Your task to perform on an android device: search for starred emails in the gmail app Image 0: 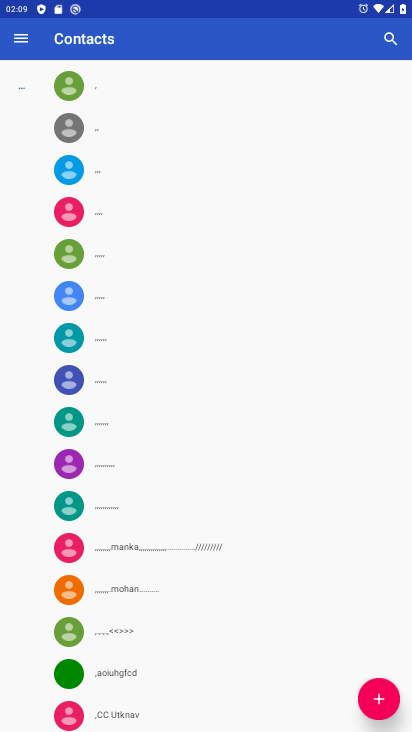
Step 0: press home button
Your task to perform on an android device: search for starred emails in the gmail app Image 1: 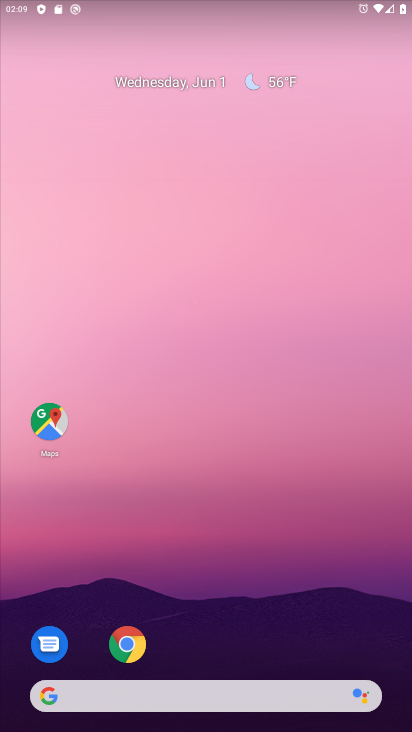
Step 1: drag from (168, 630) to (194, 368)
Your task to perform on an android device: search for starred emails in the gmail app Image 2: 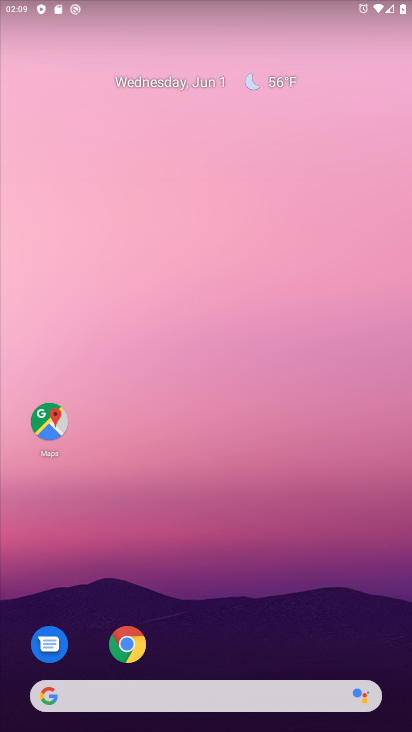
Step 2: drag from (221, 686) to (230, 172)
Your task to perform on an android device: search for starred emails in the gmail app Image 3: 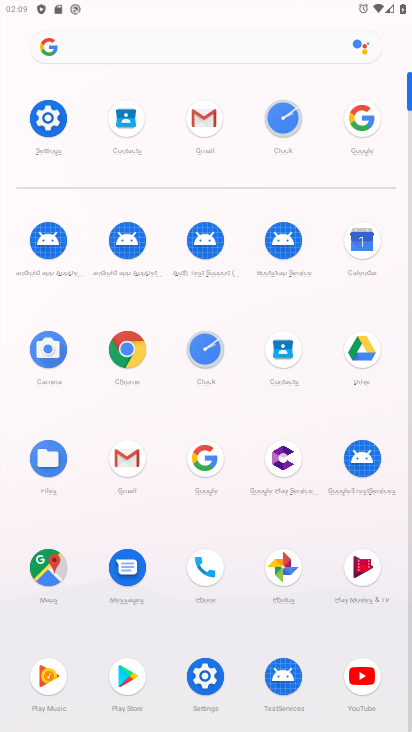
Step 3: click (213, 117)
Your task to perform on an android device: search for starred emails in the gmail app Image 4: 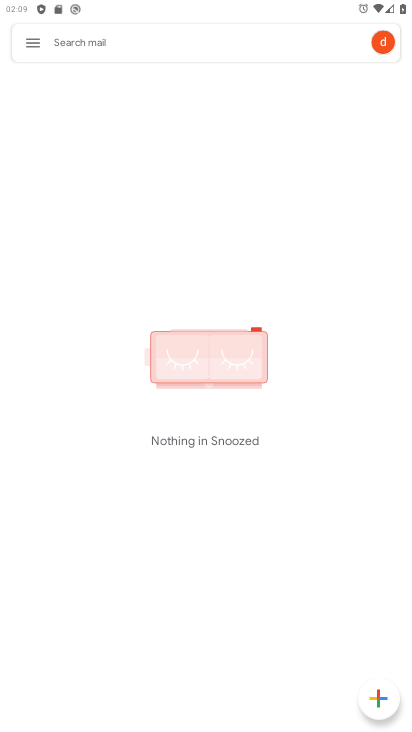
Step 4: click (29, 42)
Your task to perform on an android device: search for starred emails in the gmail app Image 5: 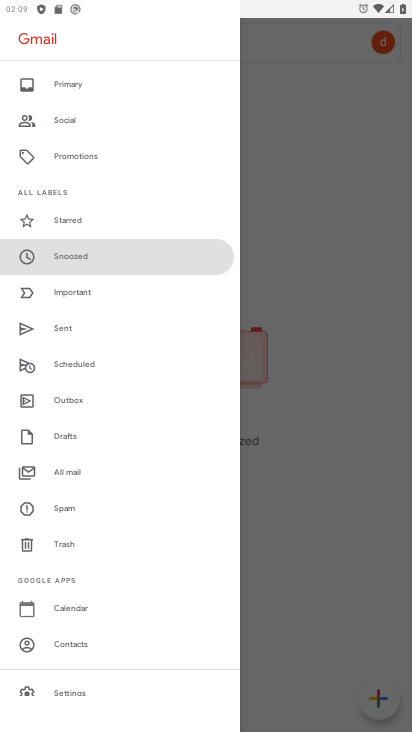
Step 5: click (80, 224)
Your task to perform on an android device: search for starred emails in the gmail app Image 6: 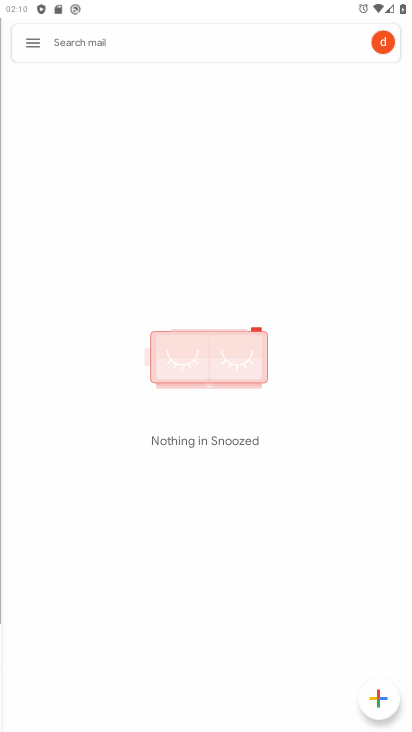
Step 6: click (69, 221)
Your task to perform on an android device: search for starred emails in the gmail app Image 7: 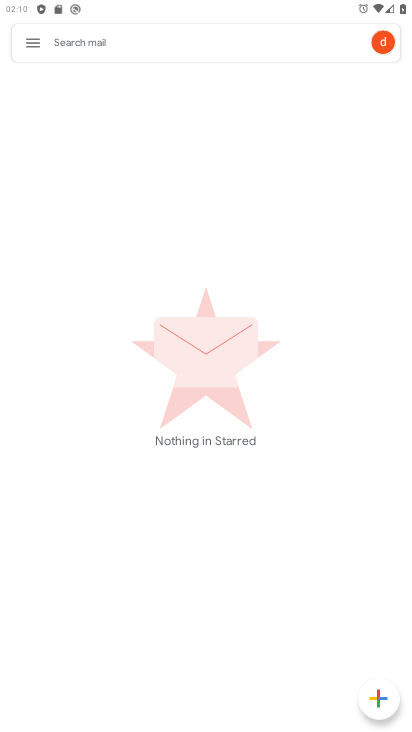
Step 7: task complete